Your task to perform on an android device: What's on my calendar tomorrow? Image 0: 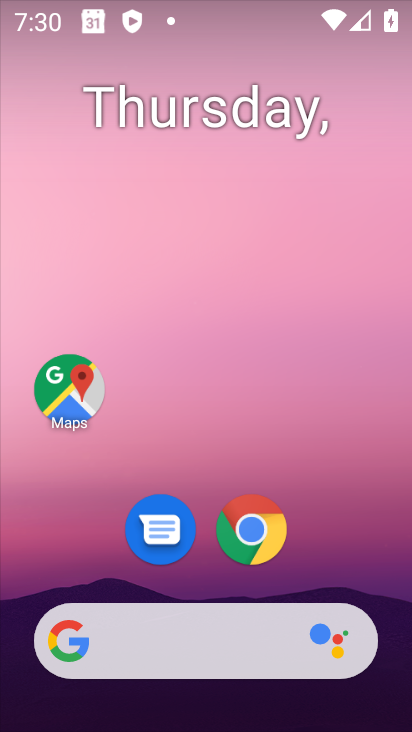
Step 0: drag from (383, 570) to (374, 224)
Your task to perform on an android device: What's on my calendar tomorrow? Image 1: 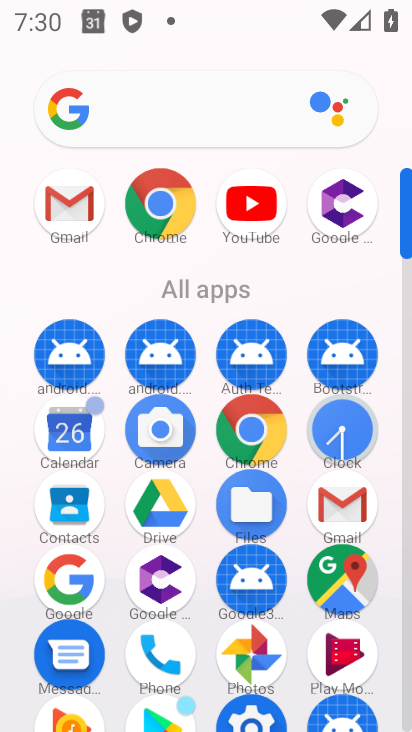
Step 1: click (89, 439)
Your task to perform on an android device: What's on my calendar tomorrow? Image 2: 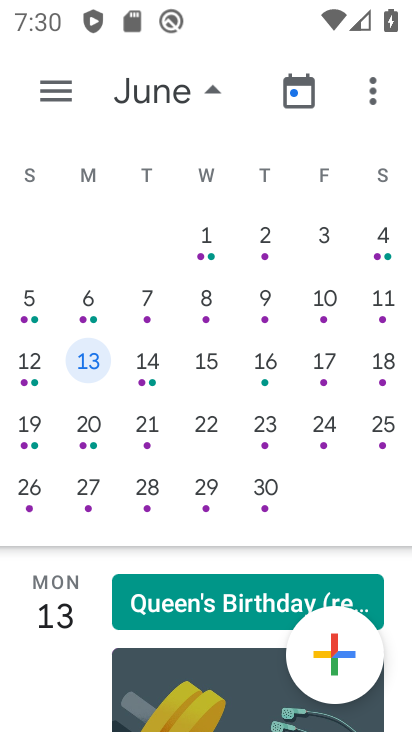
Step 2: drag from (81, 196) to (366, 236)
Your task to perform on an android device: What's on my calendar tomorrow? Image 3: 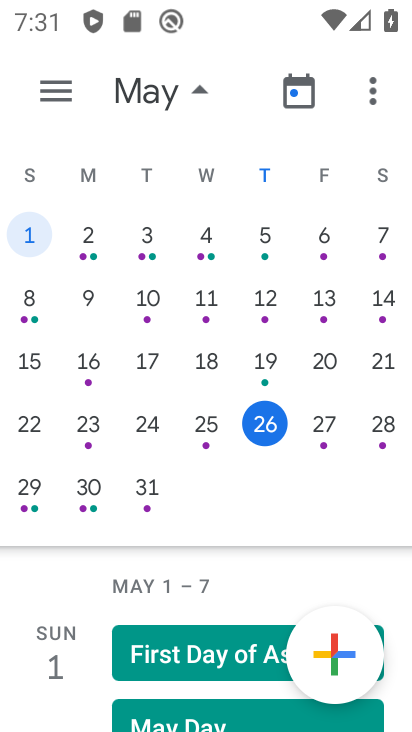
Step 3: click (392, 424)
Your task to perform on an android device: What's on my calendar tomorrow? Image 4: 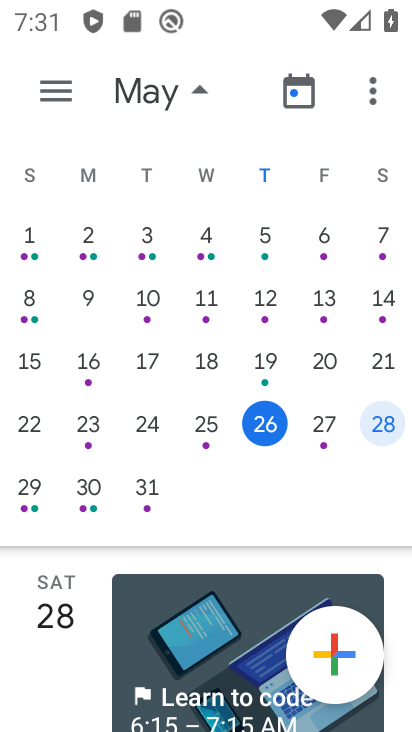
Step 4: drag from (239, 600) to (235, 337)
Your task to perform on an android device: What's on my calendar tomorrow? Image 5: 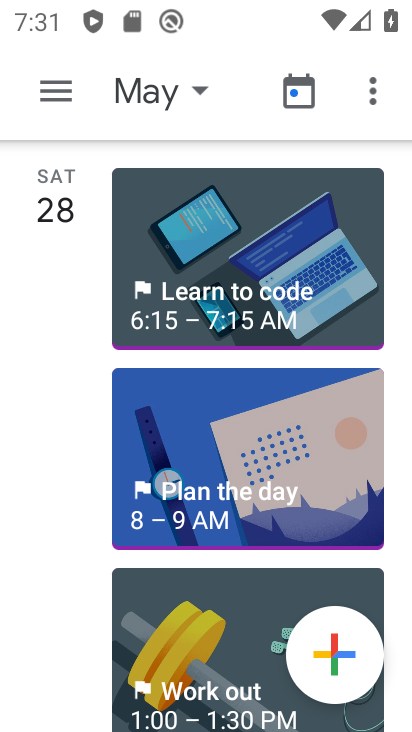
Step 5: click (259, 280)
Your task to perform on an android device: What's on my calendar tomorrow? Image 6: 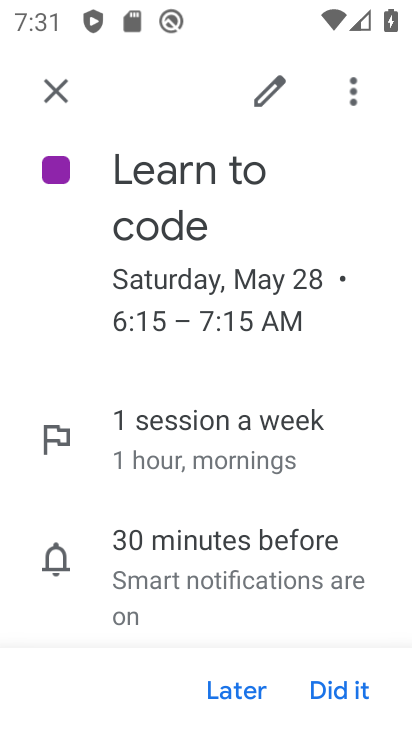
Step 6: task complete